Your task to perform on an android device: Go to Yahoo.com Image 0: 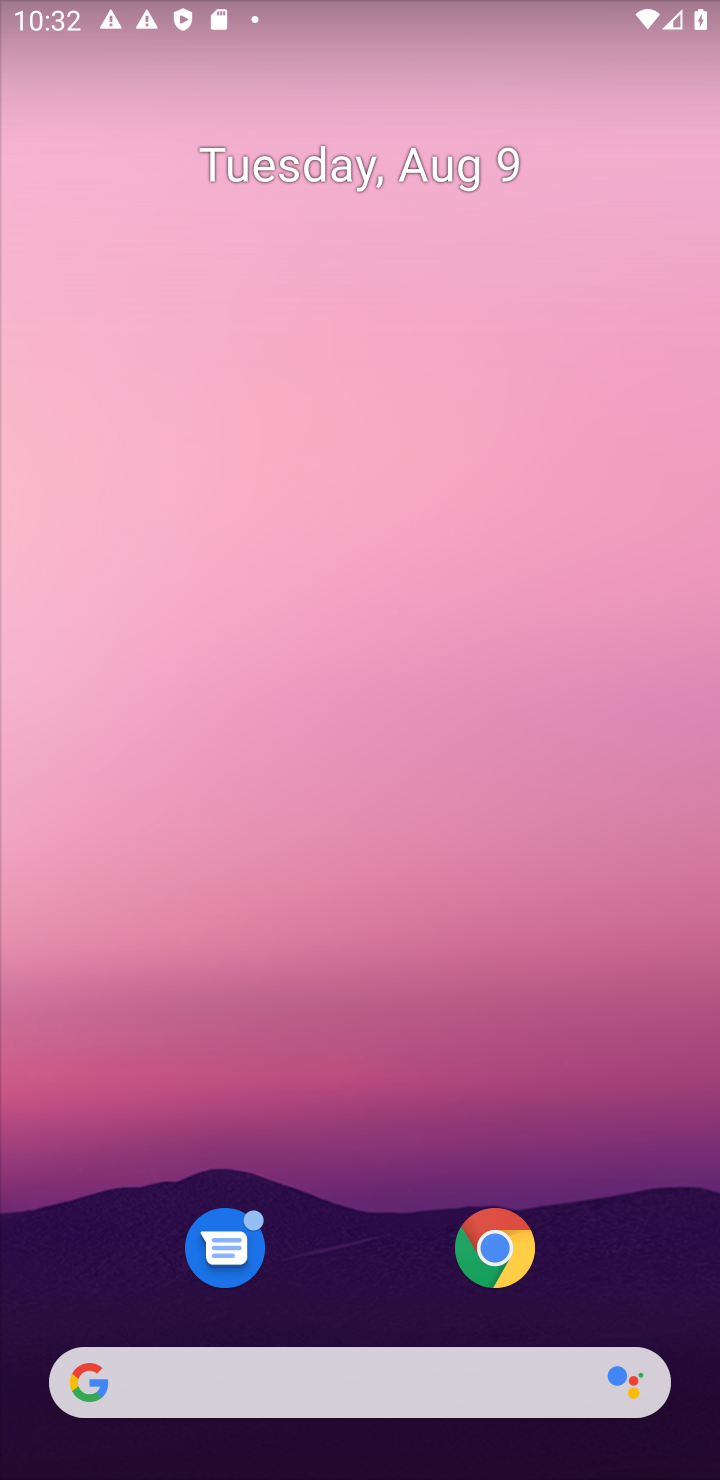
Step 0: click (495, 1375)
Your task to perform on an android device: Go to Yahoo.com Image 1: 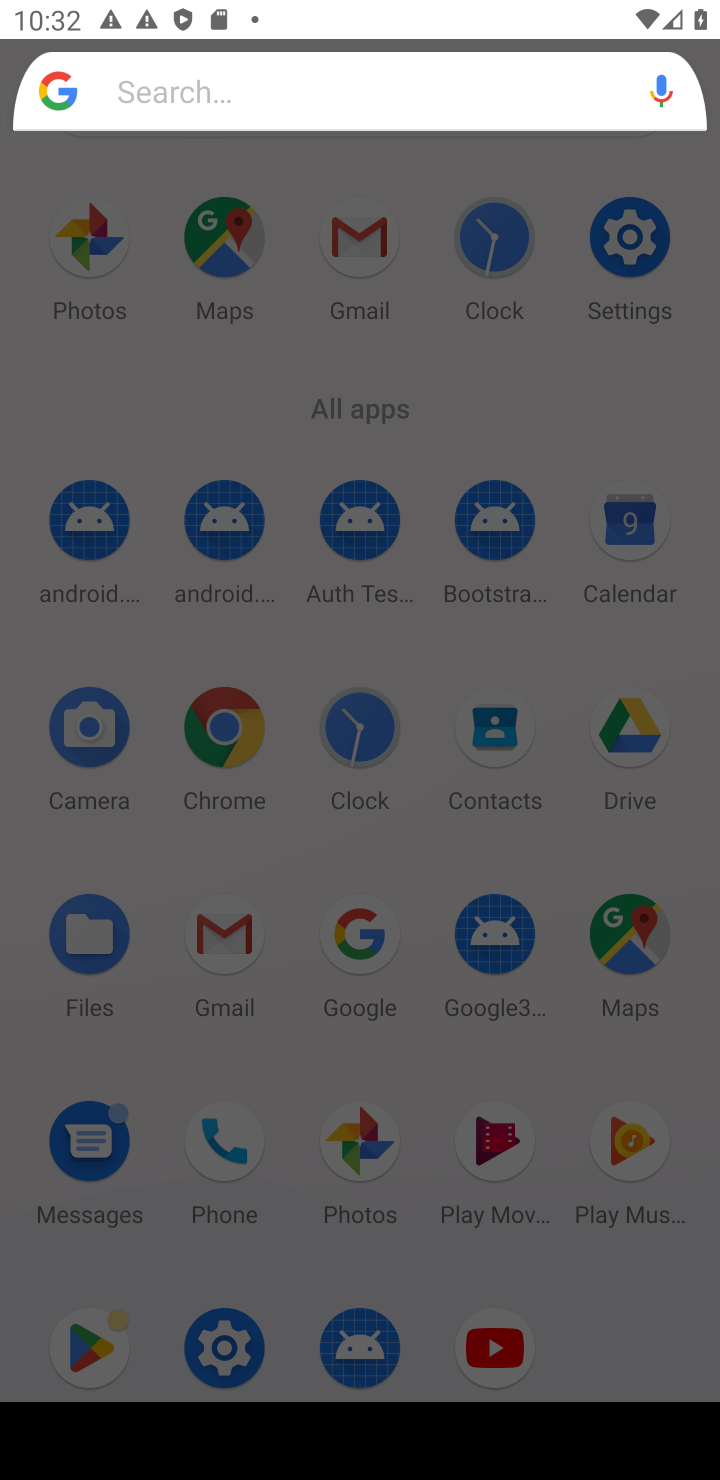
Step 1: click (358, 963)
Your task to perform on an android device: Go to Yahoo.com Image 2: 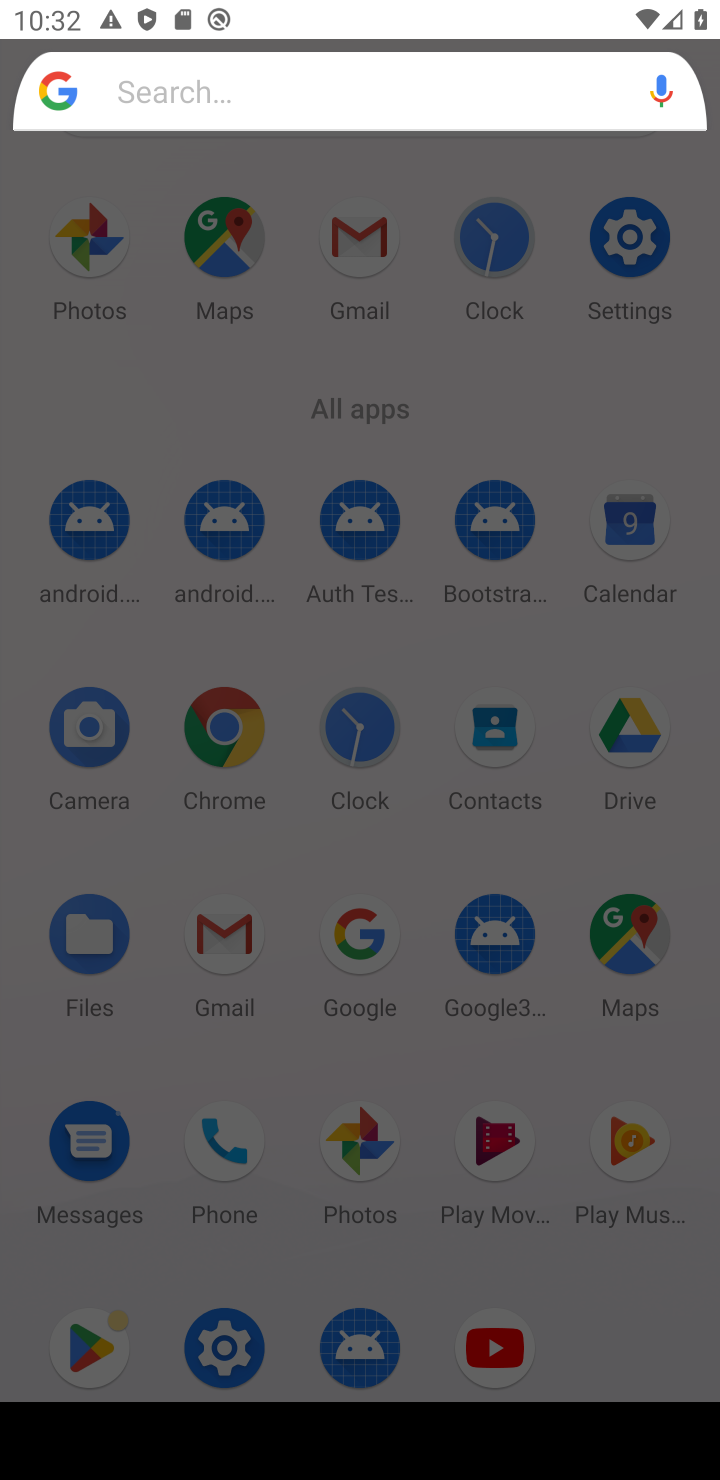
Step 2: click (358, 963)
Your task to perform on an android device: Go to Yahoo.com Image 3: 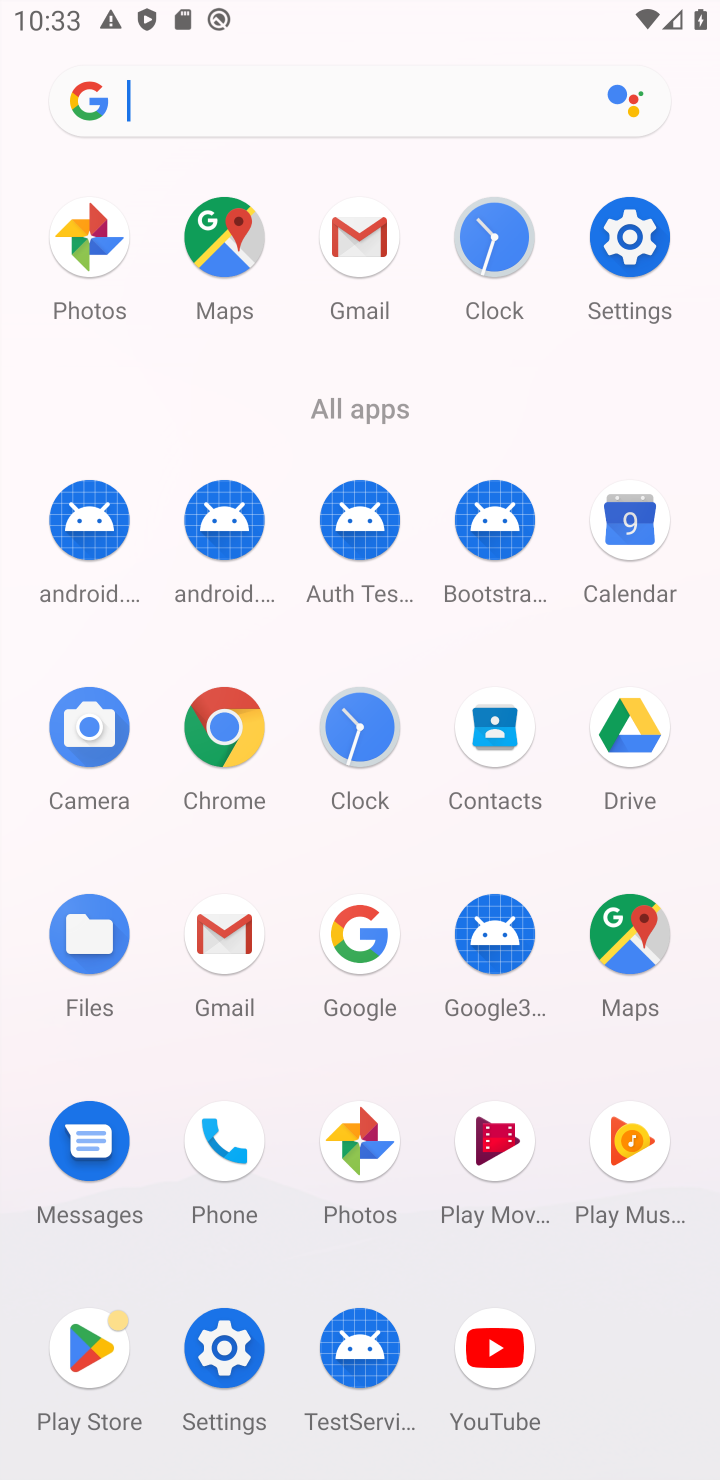
Step 3: press enter
Your task to perform on an android device: Go to Yahoo.com Image 4: 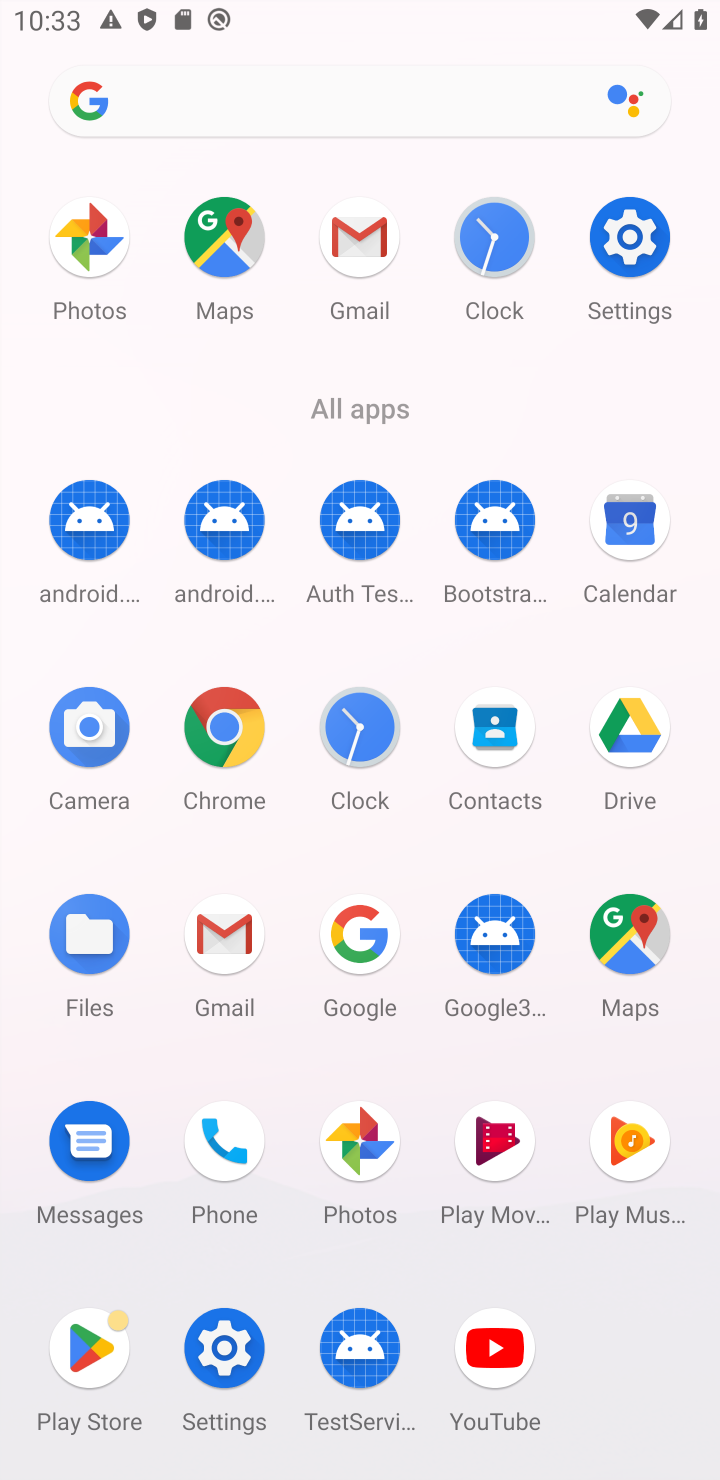
Step 4: type " Yahoo.com"
Your task to perform on an android device: Go to Yahoo.com Image 5: 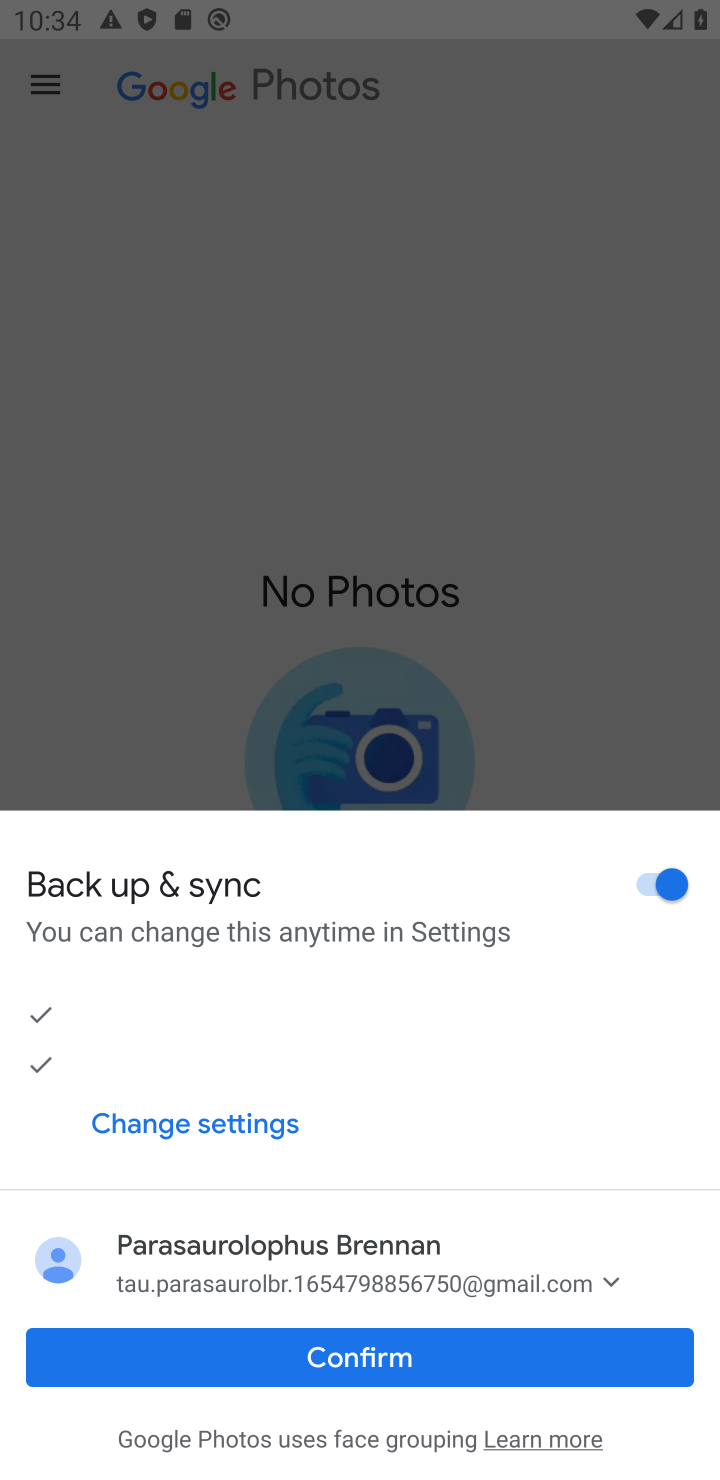
Step 5: click (306, 1351)
Your task to perform on an android device: Go to Yahoo.com Image 6: 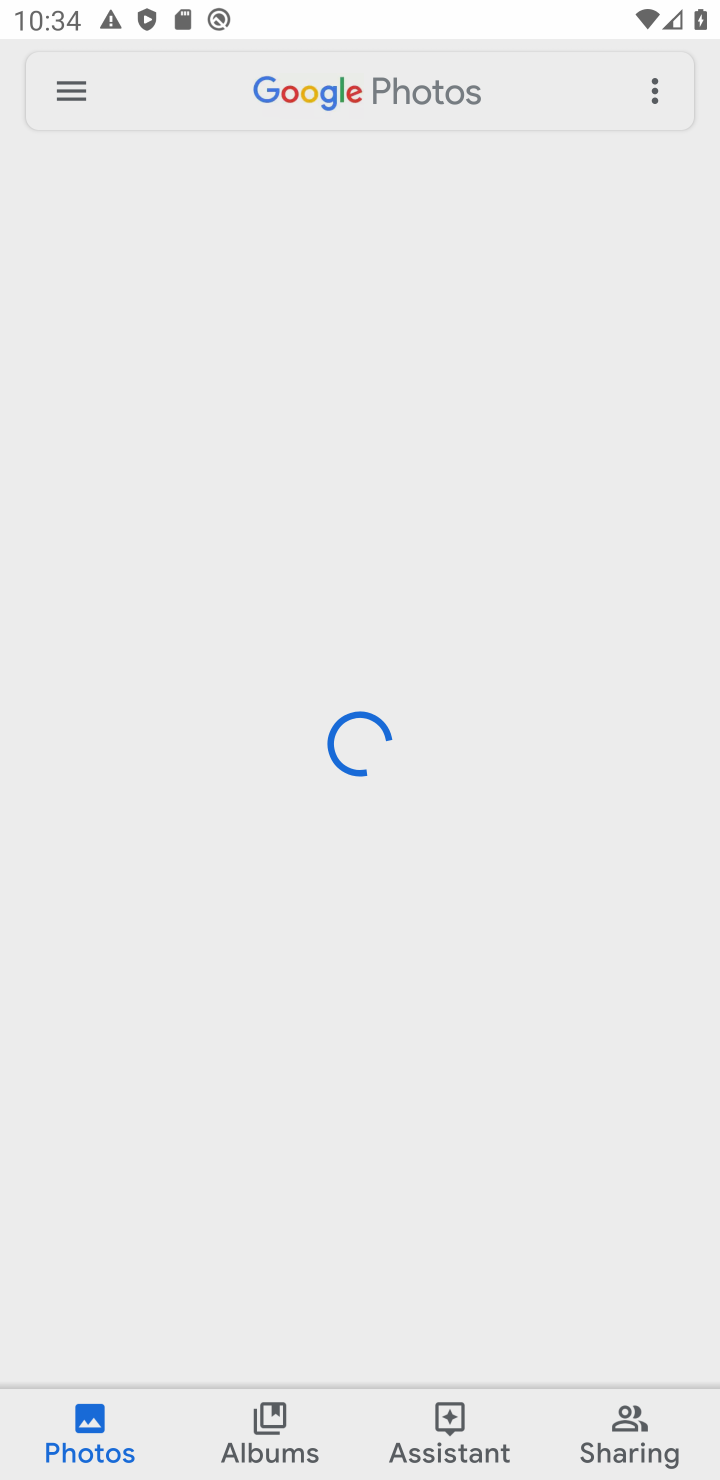
Step 6: task complete